Your task to perform on an android device: Clear all items from cart on newegg. Add "dell xps" to the cart on newegg, then select checkout. Image 0: 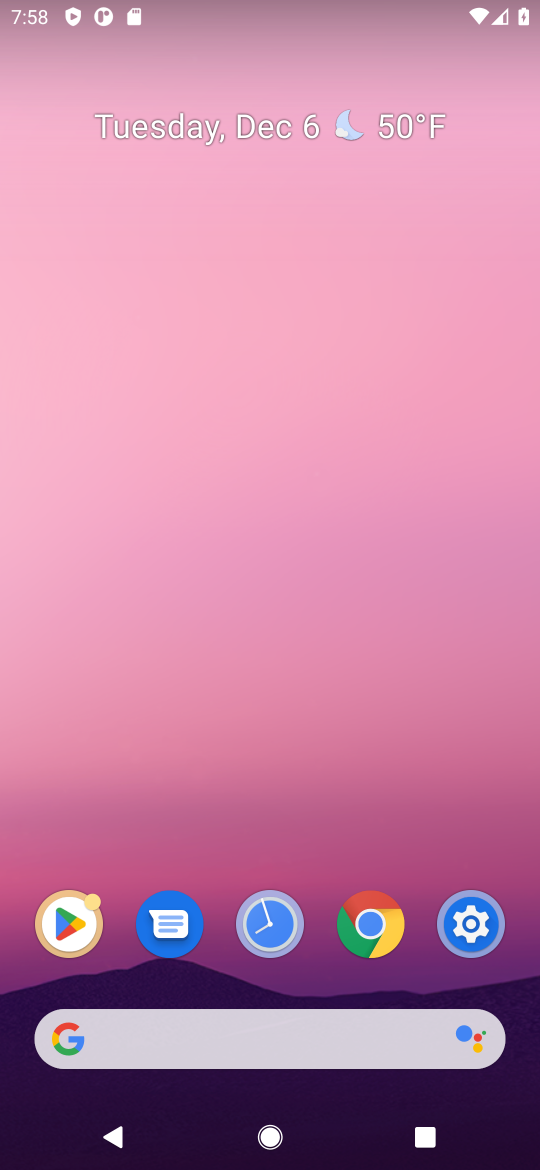
Step 0: click (194, 1048)
Your task to perform on an android device: Clear all items from cart on newegg. Add "dell xps" to the cart on newegg, then select checkout. Image 1: 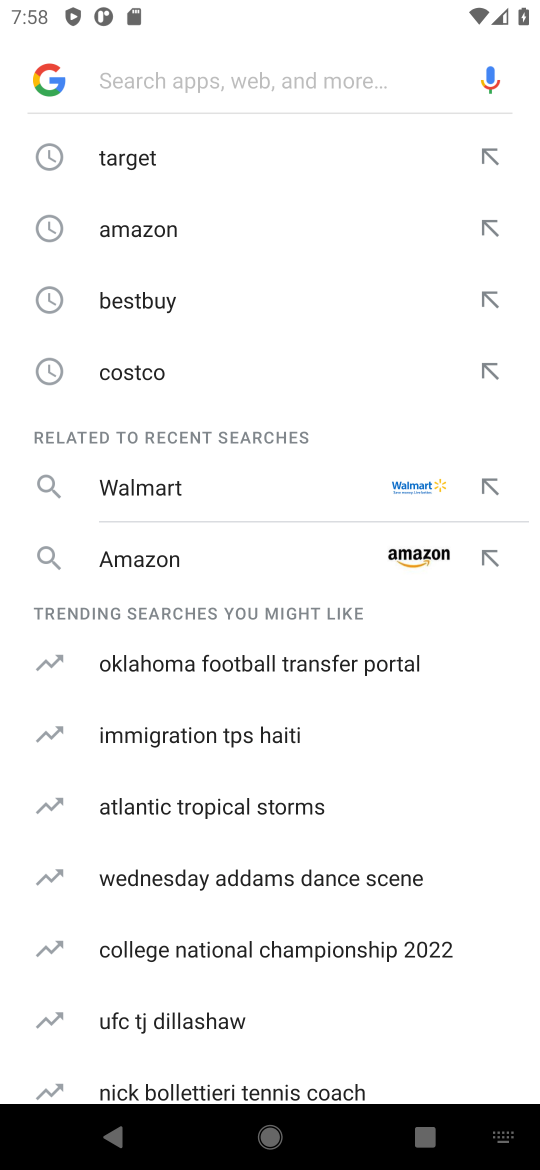
Step 1: type "dell xps"
Your task to perform on an android device: Clear all items from cart on newegg. Add "dell xps" to the cart on newegg, then select checkout. Image 2: 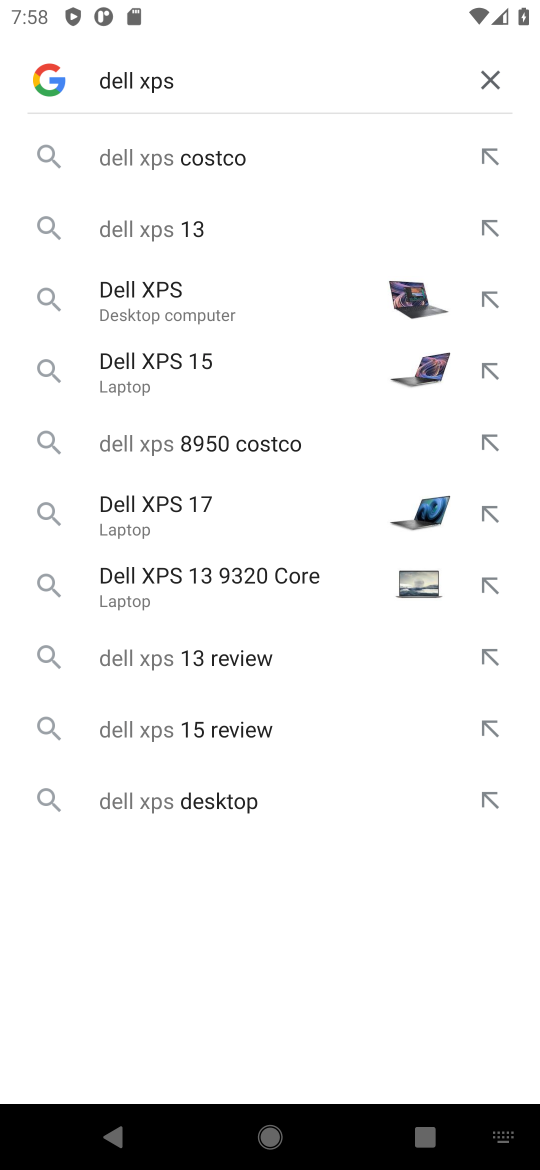
Step 2: click (196, 252)
Your task to perform on an android device: Clear all items from cart on newegg. Add "dell xps" to the cart on newegg, then select checkout. Image 3: 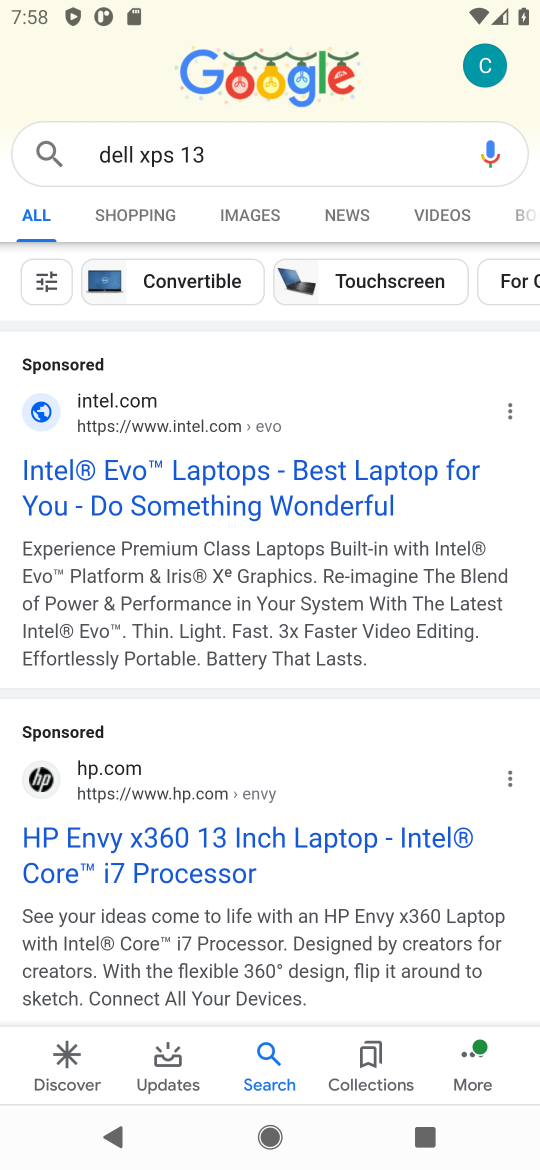
Step 3: click (76, 478)
Your task to perform on an android device: Clear all items from cart on newegg. Add "dell xps" to the cart on newegg, then select checkout. Image 4: 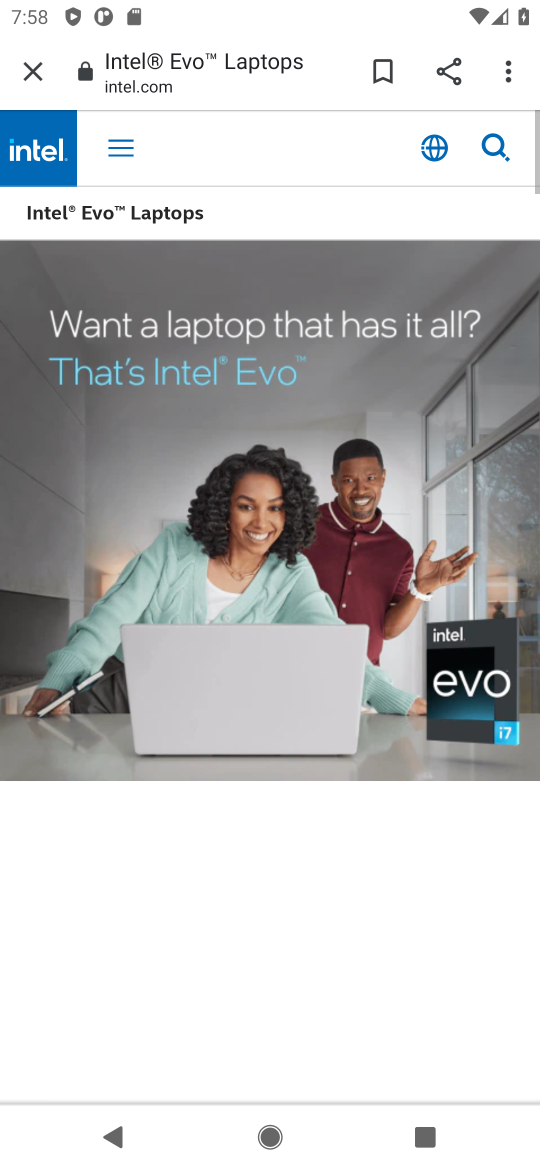
Step 4: task complete